Your task to perform on an android device: Is it going to rain tomorrow? Image 0: 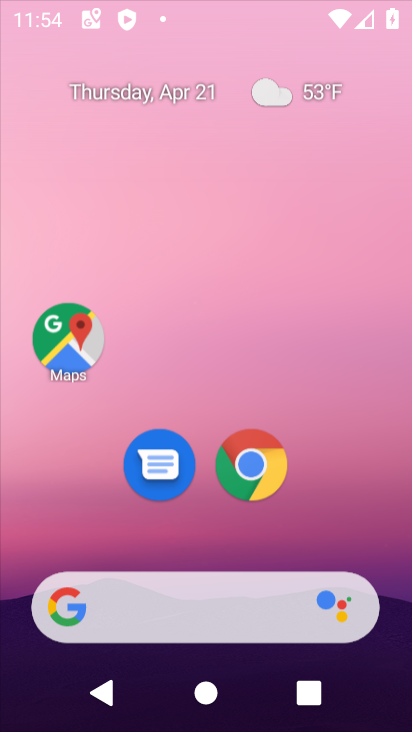
Step 0: drag from (324, 476) to (262, 2)
Your task to perform on an android device: Is it going to rain tomorrow? Image 1: 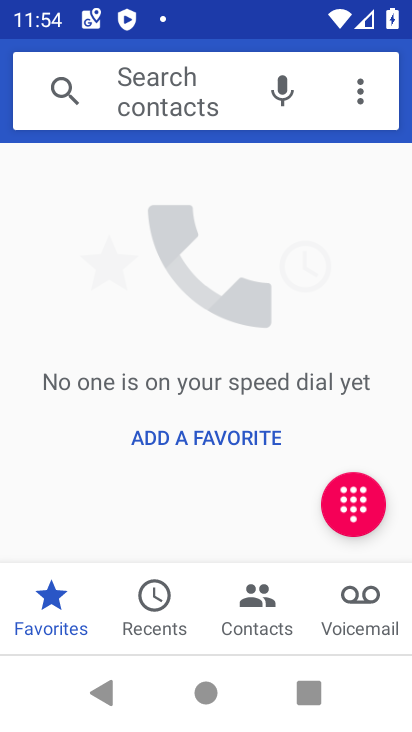
Step 1: press back button
Your task to perform on an android device: Is it going to rain tomorrow? Image 2: 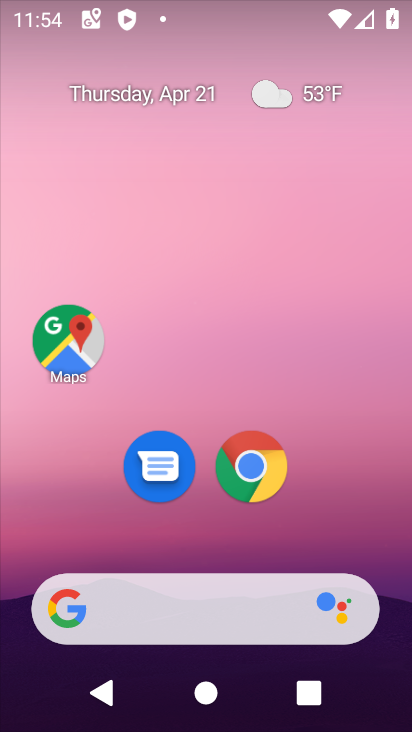
Step 2: drag from (332, 493) to (214, 61)
Your task to perform on an android device: Is it going to rain tomorrow? Image 3: 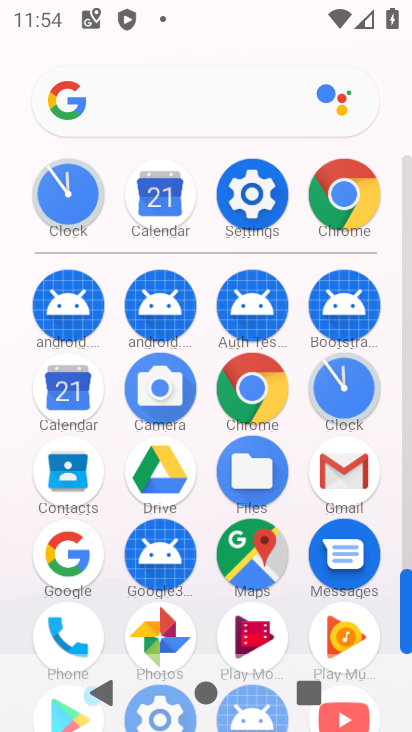
Step 3: drag from (6, 588) to (11, 346)
Your task to perform on an android device: Is it going to rain tomorrow? Image 4: 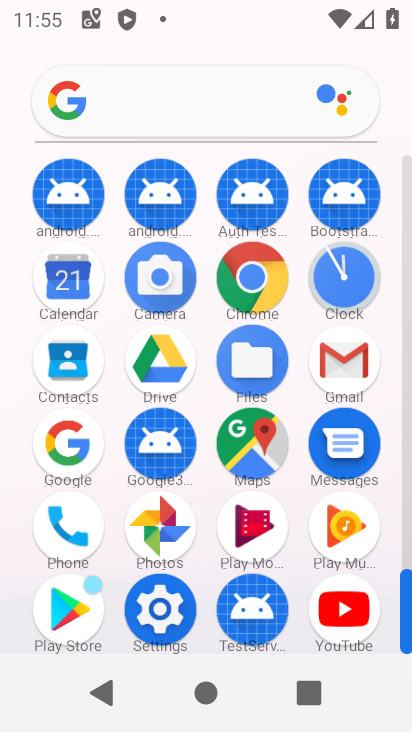
Step 4: click (138, 77)
Your task to perform on an android device: Is it going to rain tomorrow? Image 5: 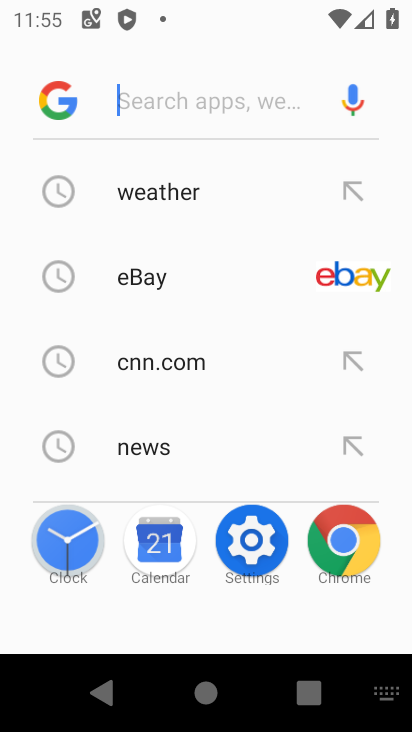
Step 5: type "Is it going to rain tomorrow?"
Your task to perform on an android device: Is it going to rain tomorrow? Image 6: 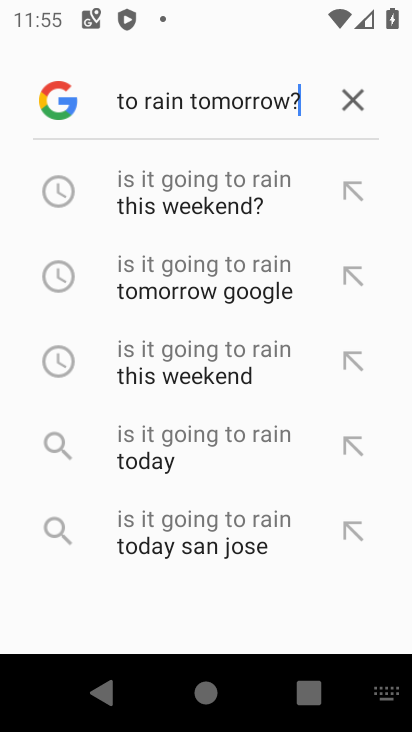
Step 6: type ""
Your task to perform on an android device: Is it going to rain tomorrow? Image 7: 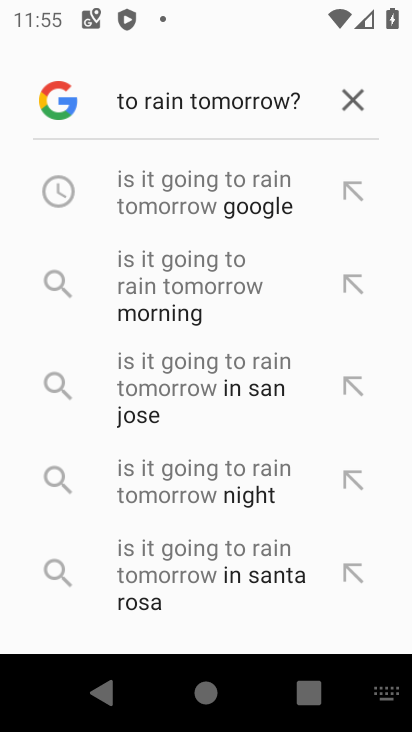
Step 7: click (153, 193)
Your task to perform on an android device: Is it going to rain tomorrow? Image 8: 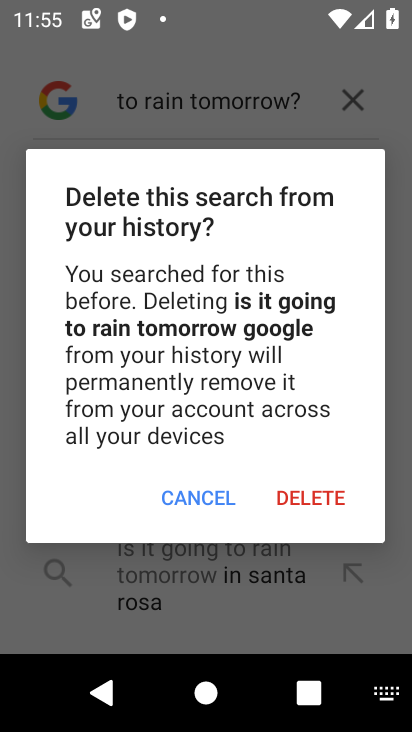
Step 8: click (188, 501)
Your task to perform on an android device: Is it going to rain tomorrow? Image 9: 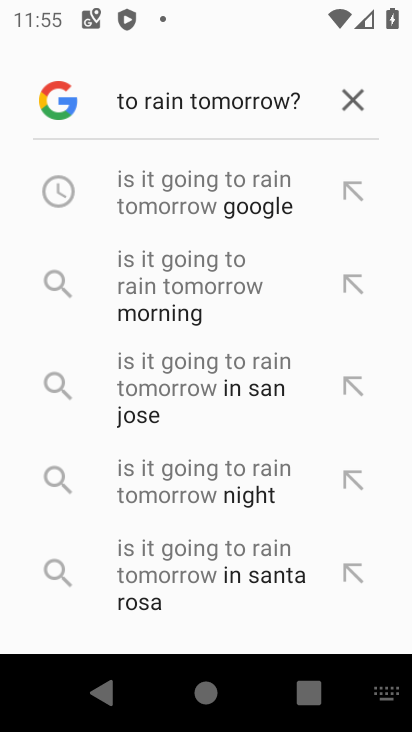
Step 9: click (229, 199)
Your task to perform on an android device: Is it going to rain tomorrow? Image 10: 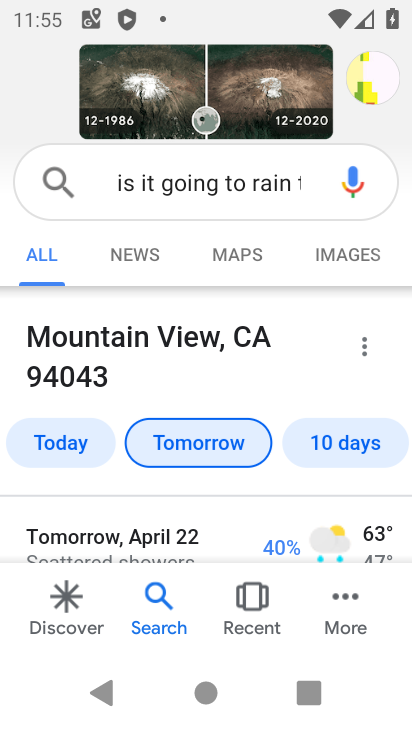
Step 10: task complete